Your task to perform on an android device: change the clock style Image 0: 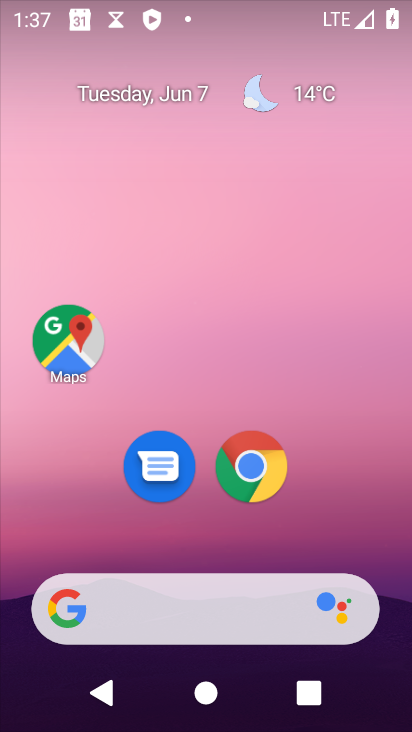
Step 0: drag from (177, 493) to (218, 149)
Your task to perform on an android device: change the clock style Image 1: 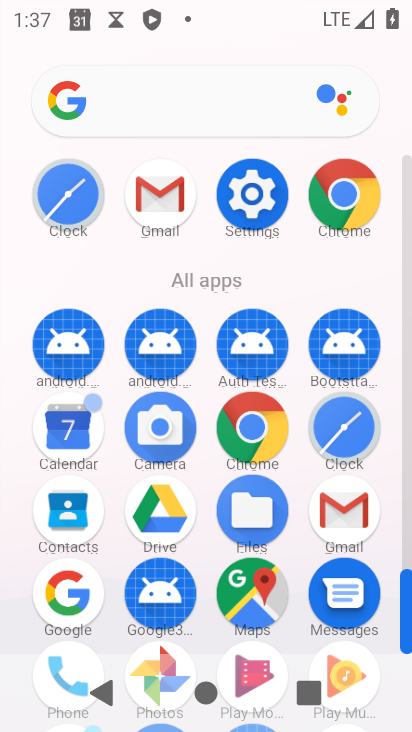
Step 1: click (50, 182)
Your task to perform on an android device: change the clock style Image 2: 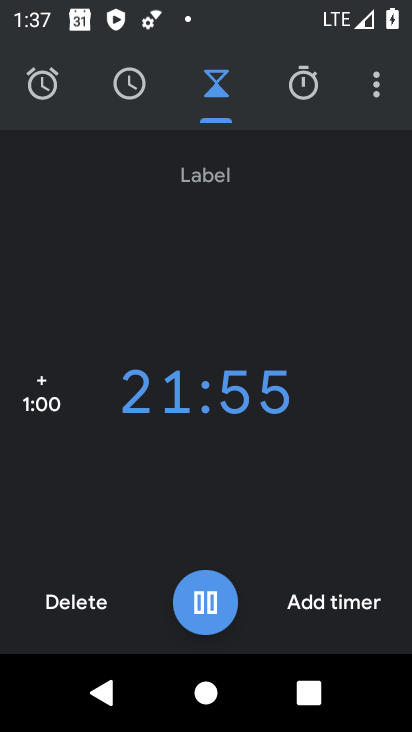
Step 2: click (375, 77)
Your task to perform on an android device: change the clock style Image 3: 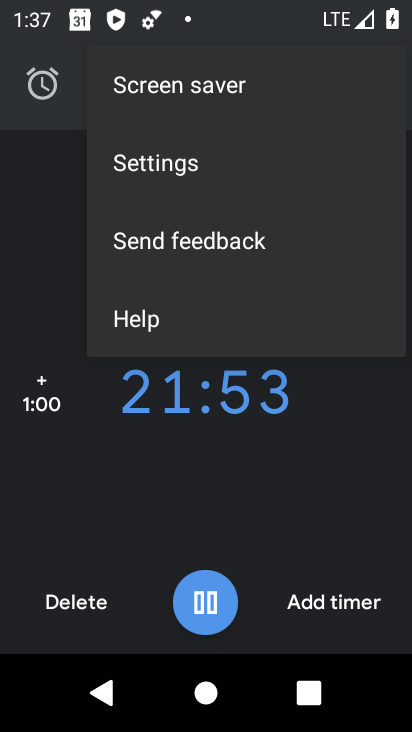
Step 3: click (169, 155)
Your task to perform on an android device: change the clock style Image 4: 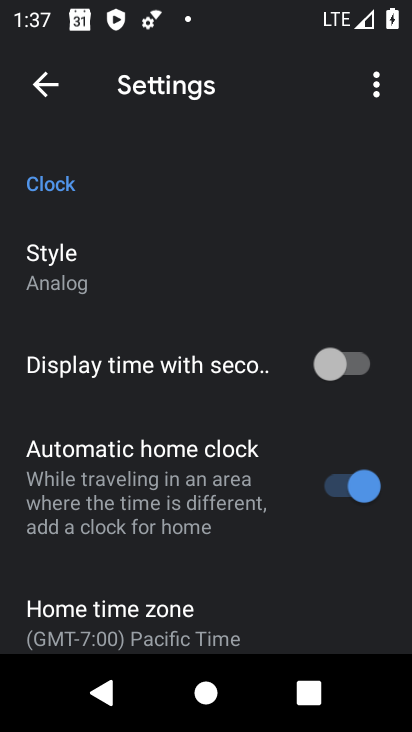
Step 4: click (80, 262)
Your task to perform on an android device: change the clock style Image 5: 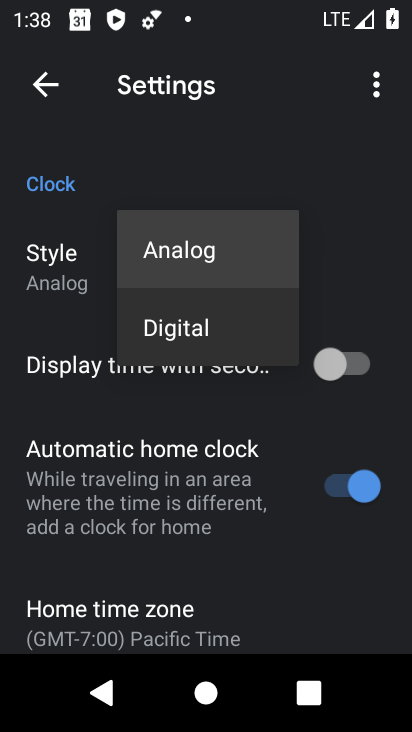
Step 5: click (151, 332)
Your task to perform on an android device: change the clock style Image 6: 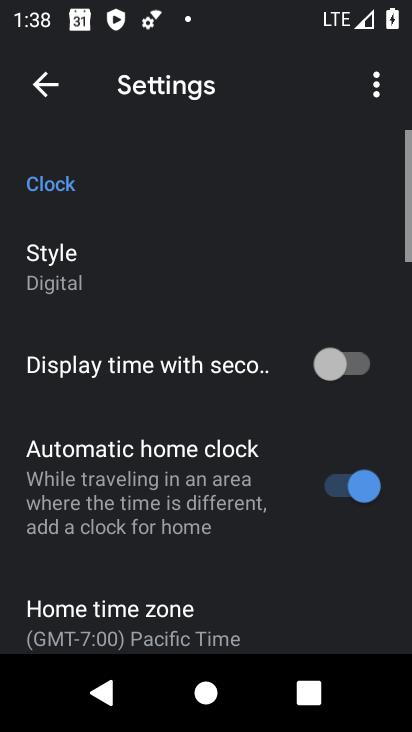
Step 6: task complete